Your task to perform on an android device: Open settings on Google Maps Image 0: 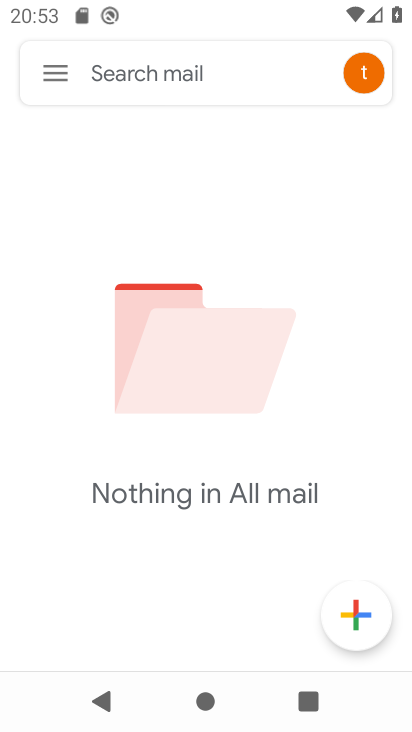
Step 0: press home button
Your task to perform on an android device: Open settings on Google Maps Image 1: 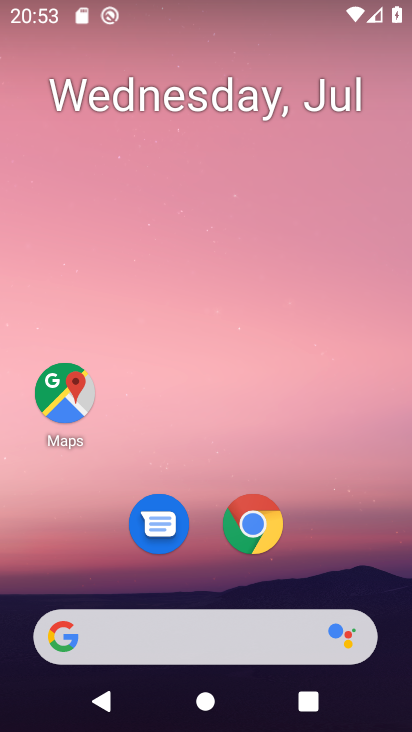
Step 1: click (57, 399)
Your task to perform on an android device: Open settings on Google Maps Image 2: 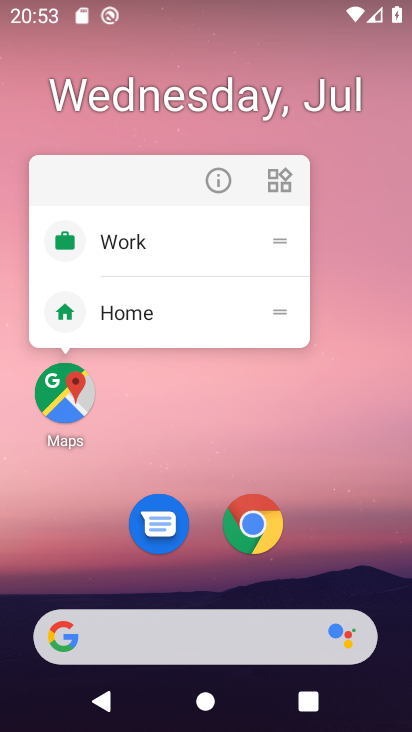
Step 2: click (64, 399)
Your task to perform on an android device: Open settings on Google Maps Image 3: 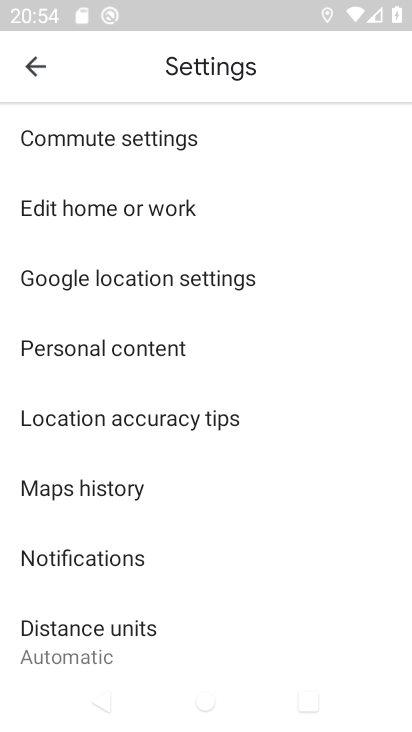
Step 3: task complete